Your task to perform on an android device: clear history in the chrome app Image 0: 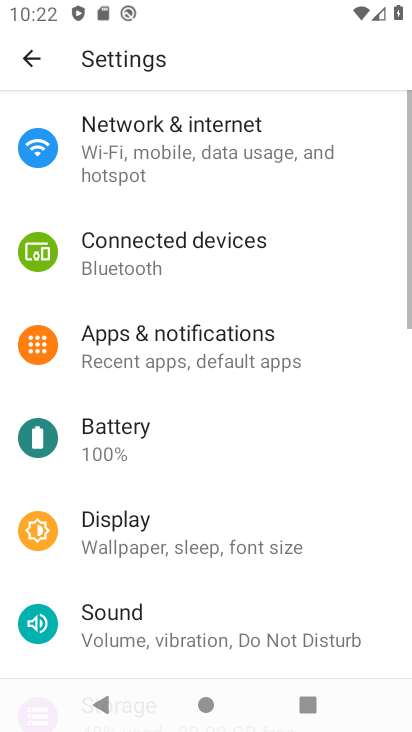
Step 0: press home button
Your task to perform on an android device: clear history in the chrome app Image 1: 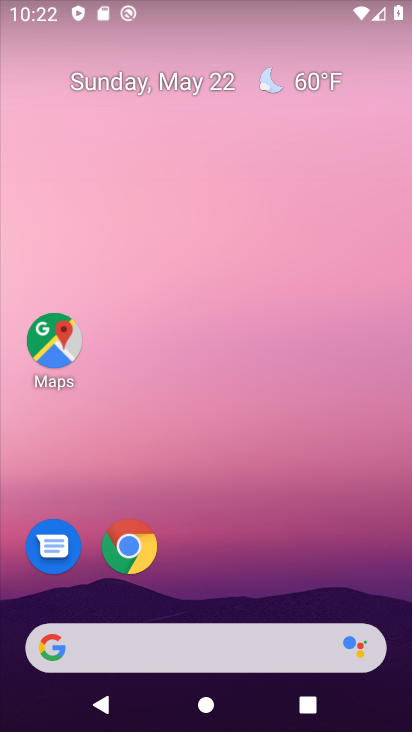
Step 1: click (131, 546)
Your task to perform on an android device: clear history in the chrome app Image 2: 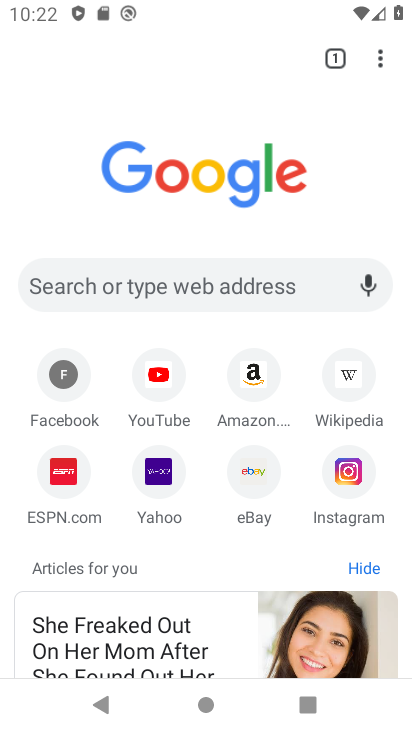
Step 2: click (381, 63)
Your task to perform on an android device: clear history in the chrome app Image 3: 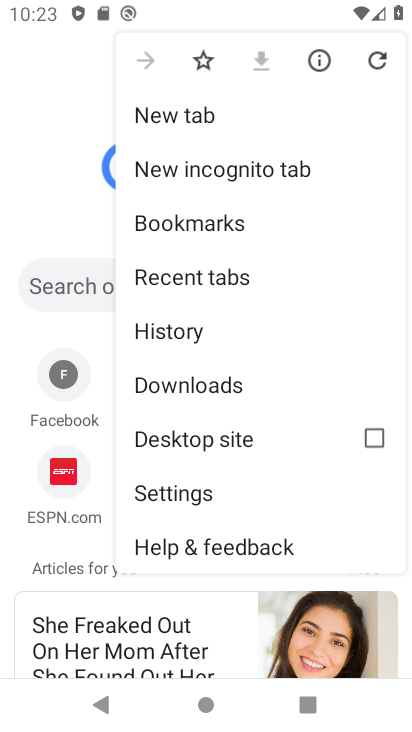
Step 3: click (178, 328)
Your task to perform on an android device: clear history in the chrome app Image 4: 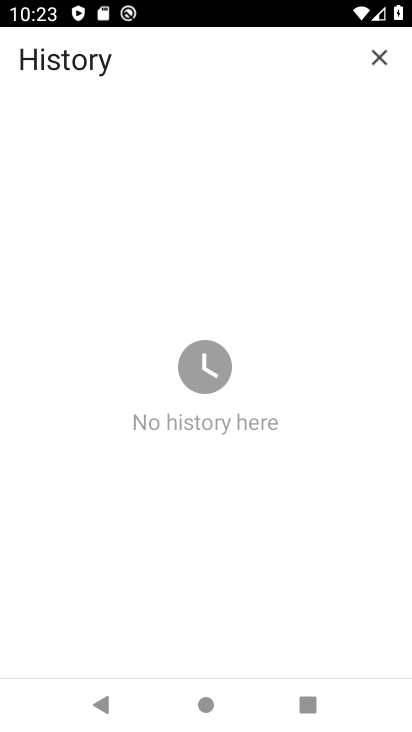
Step 4: task complete